Your task to perform on an android device: turn on priority inbox in the gmail app Image 0: 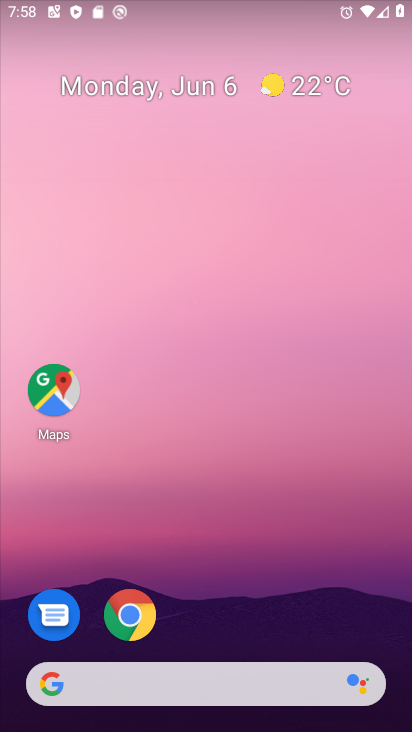
Step 0: drag from (399, 722) to (384, 159)
Your task to perform on an android device: turn on priority inbox in the gmail app Image 1: 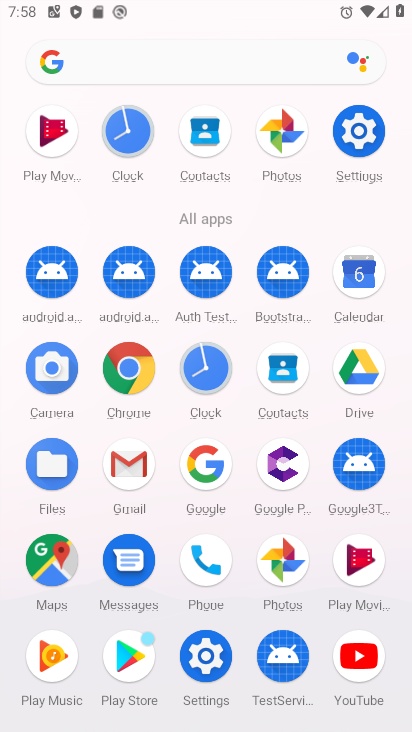
Step 1: click (114, 466)
Your task to perform on an android device: turn on priority inbox in the gmail app Image 2: 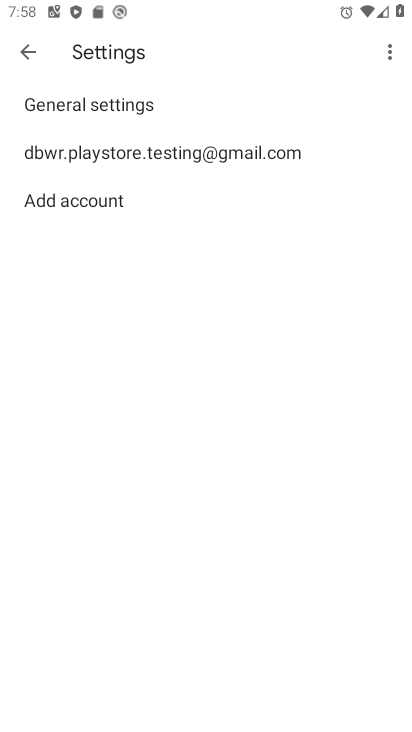
Step 2: click (49, 151)
Your task to perform on an android device: turn on priority inbox in the gmail app Image 3: 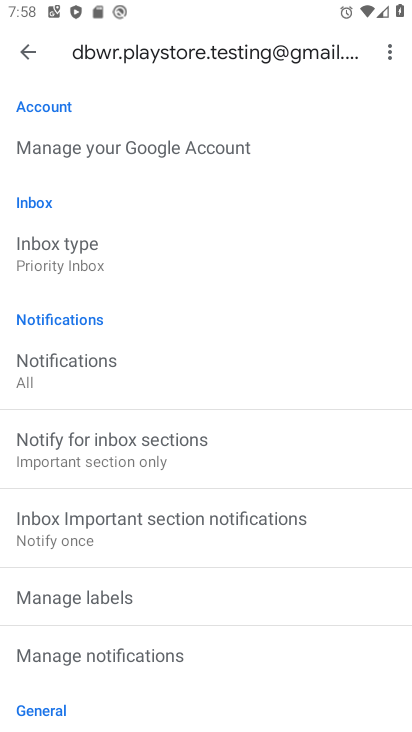
Step 3: click (59, 249)
Your task to perform on an android device: turn on priority inbox in the gmail app Image 4: 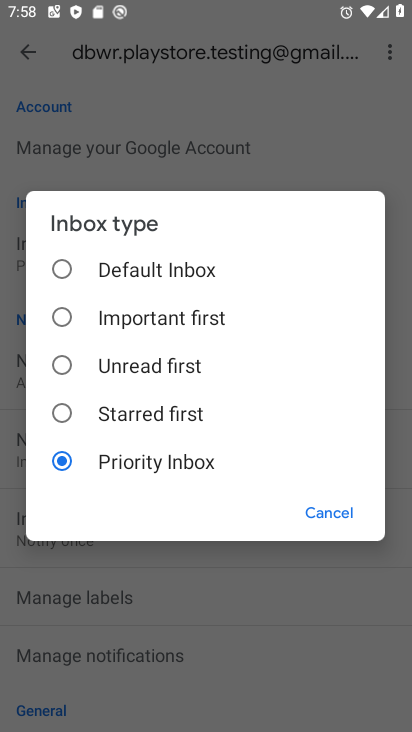
Step 4: task complete